Your task to perform on an android device: turn off location history Image 0: 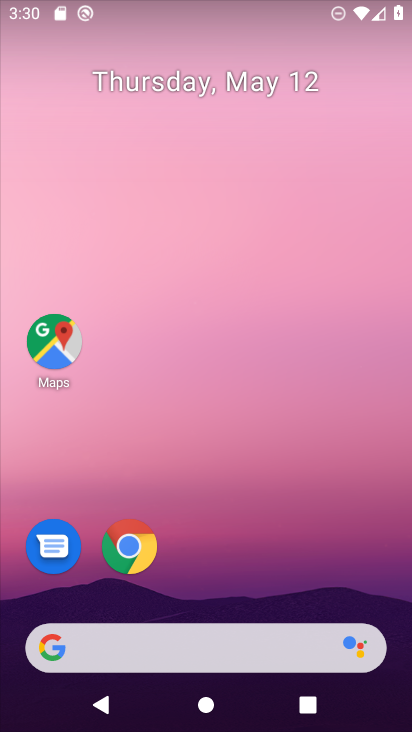
Step 0: drag from (258, 554) to (235, 253)
Your task to perform on an android device: turn off location history Image 1: 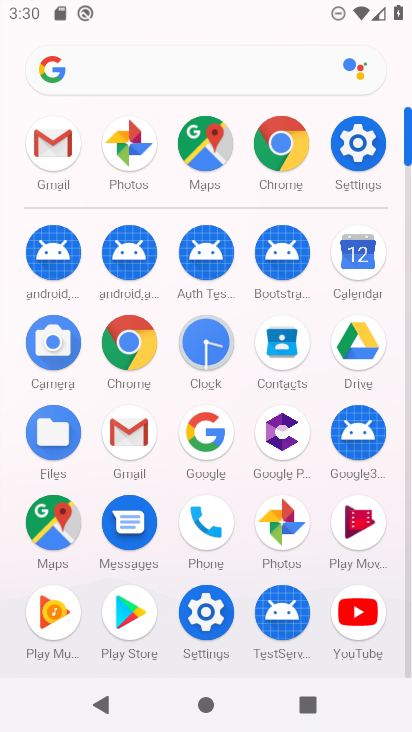
Step 1: click (357, 135)
Your task to perform on an android device: turn off location history Image 2: 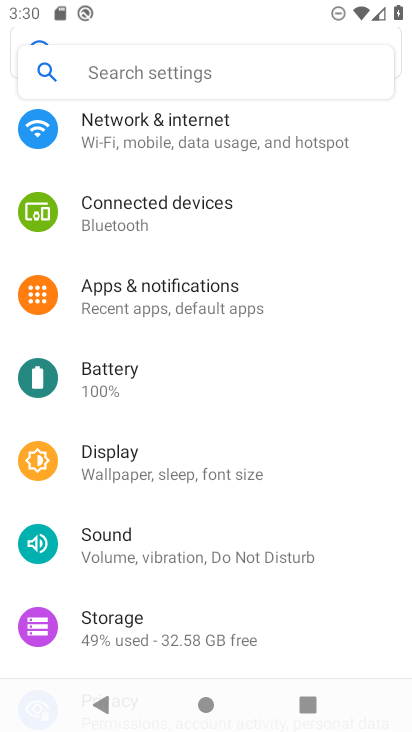
Step 2: drag from (224, 575) to (287, 247)
Your task to perform on an android device: turn off location history Image 3: 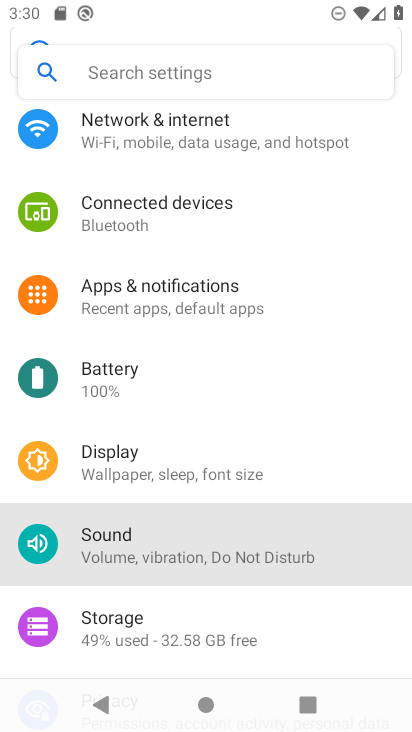
Step 3: drag from (309, 515) to (312, 329)
Your task to perform on an android device: turn off location history Image 4: 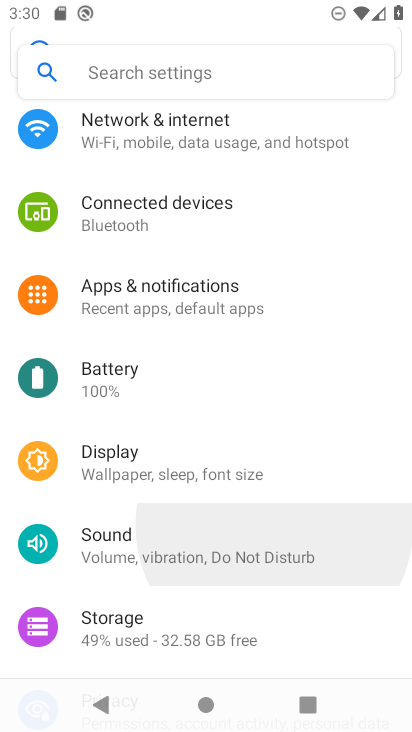
Step 4: drag from (222, 527) to (246, 251)
Your task to perform on an android device: turn off location history Image 5: 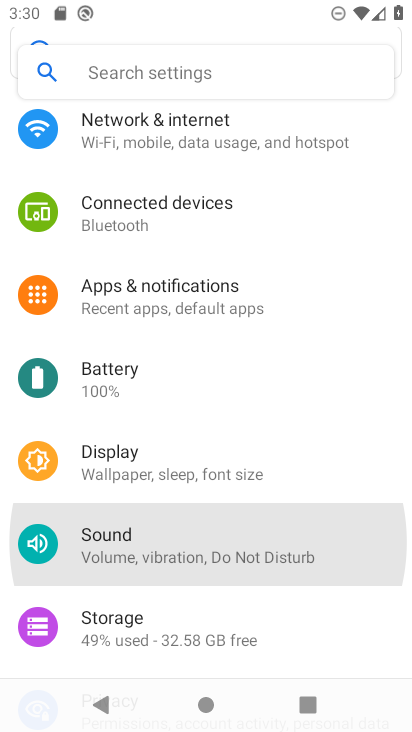
Step 5: drag from (184, 529) to (234, 233)
Your task to perform on an android device: turn off location history Image 6: 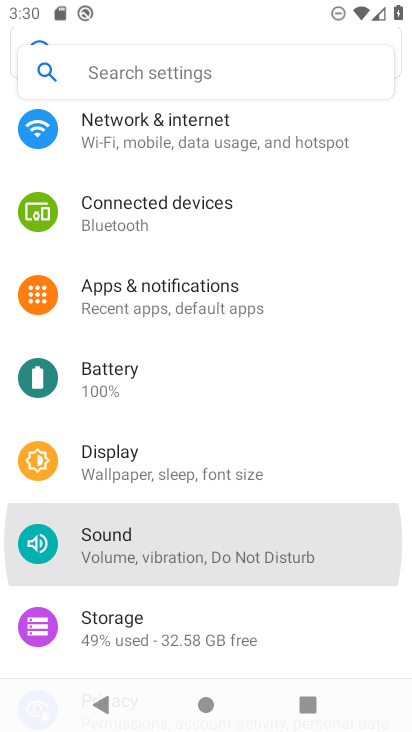
Step 6: drag from (183, 609) to (238, 288)
Your task to perform on an android device: turn off location history Image 7: 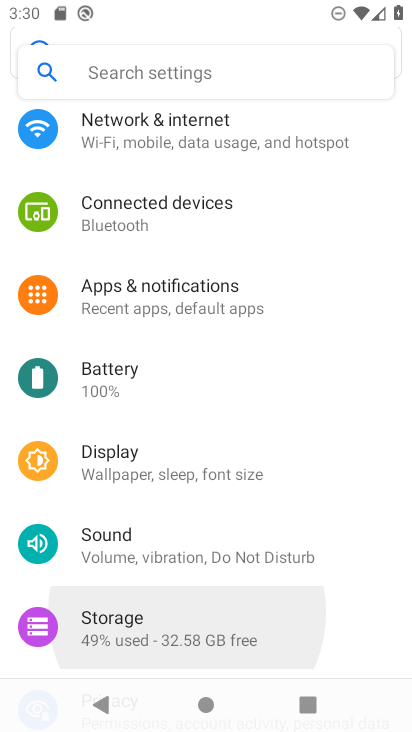
Step 7: drag from (189, 601) to (233, 251)
Your task to perform on an android device: turn off location history Image 8: 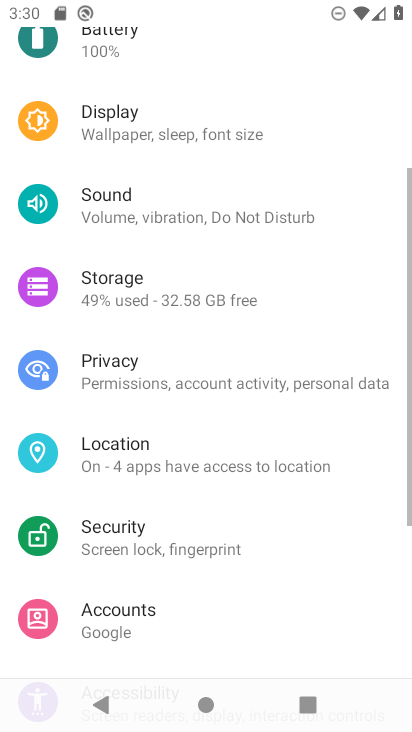
Step 8: drag from (256, 414) to (264, 228)
Your task to perform on an android device: turn off location history Image 9: 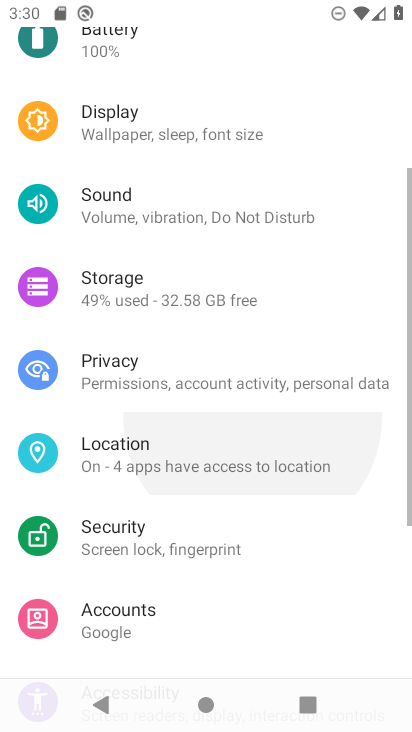
Step 9: drag from (143, 508) to (201, 223)
Your task to perform on an android device: turn off location history Image 10: 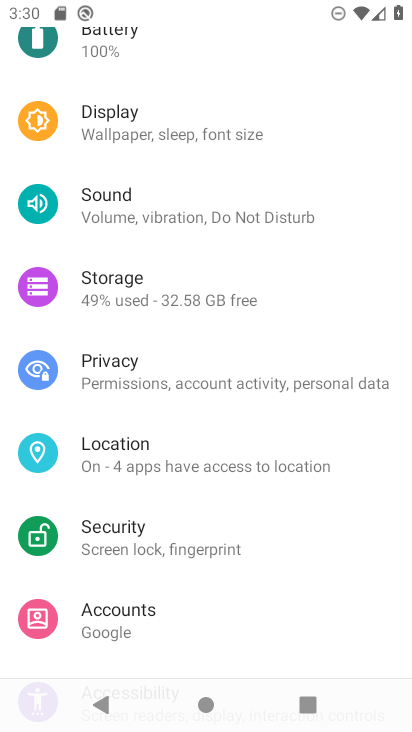
Step 10: click (134, 466)
Your task to perform on an android device: turn off location history Image 11: 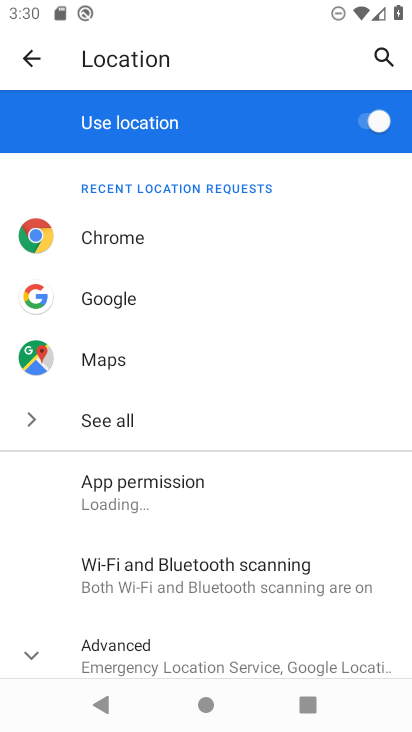
Step 11: drag from (202, 600) to (273, 191)
Your task to perform on an android device: turn off location history Image 12: 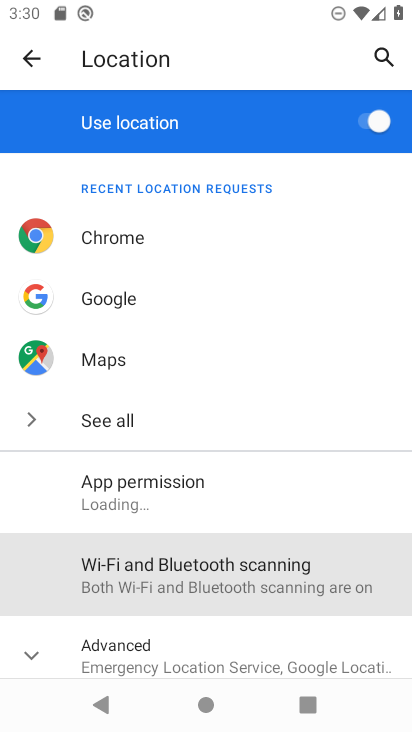
Step 12: drag from (231, 507) to (244, 222)
Your task to perform on an android device: turn off location history Image 13: 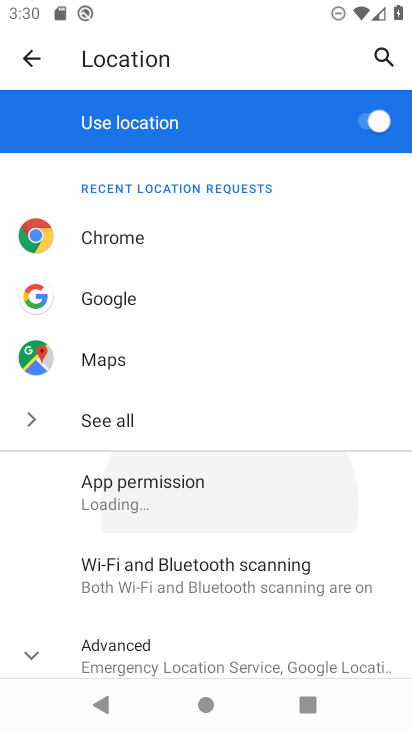
Step 13: drag from (137, 521) to (214, 235)
Your task to perform on an android device: turn off location history Image 14: 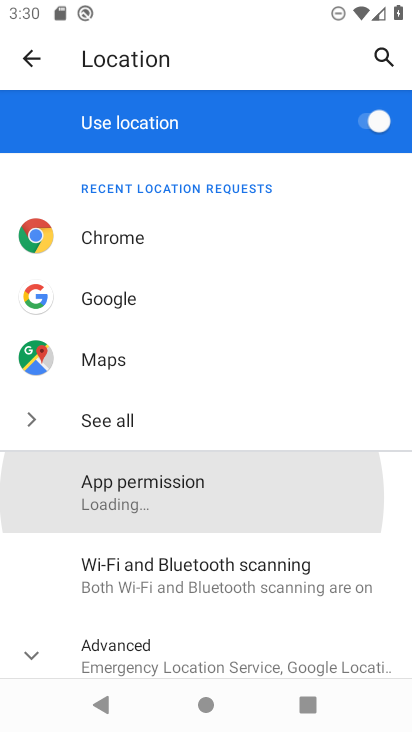
Step 14: drag from (177, 559) to (253, 285)
Your task to perform on an android device: turn off location history Image 15: 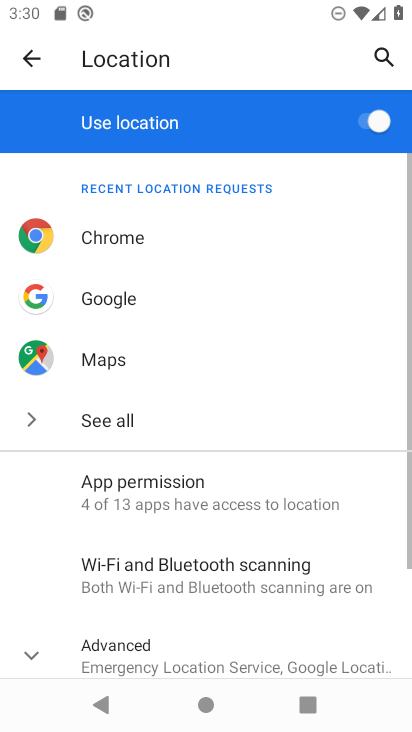
Step 15: drag from (248, 461) to (275, 302)
Your task to perform on an android device: turn off location history Image 16: 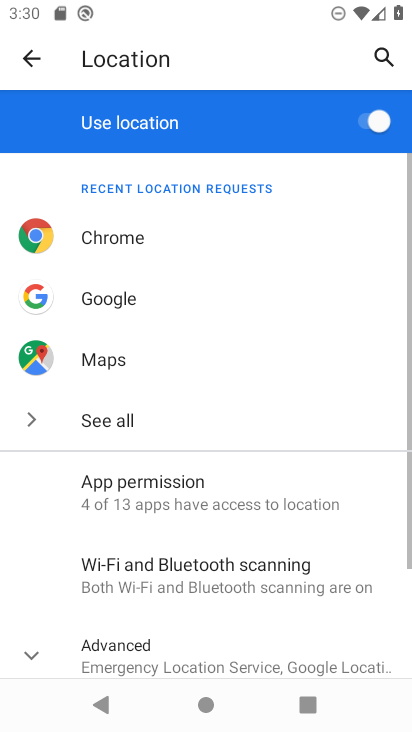
Step 16: drag from (241, 548) to (292, 257)
Your task to perform on an android device: turn off location history Image 17: 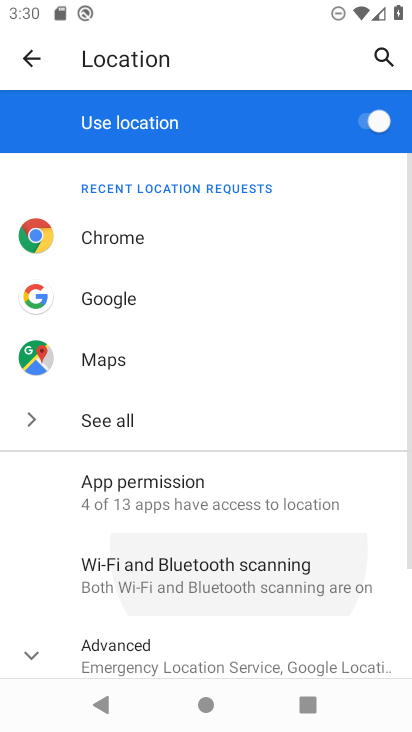
Step 17: drag from (226, 601) to (309, 258)
Your task to perform on an android device: turn off location history Image 18: 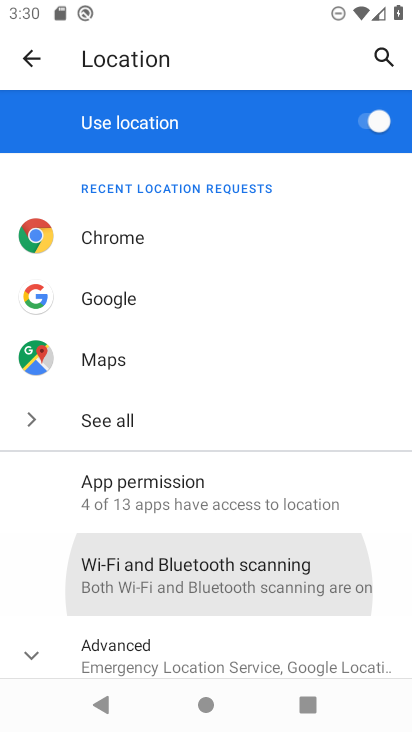
Step 18: drag from (248, 568) to (320, 256)
Your task to perform on an android device: turn off location history Image 19: 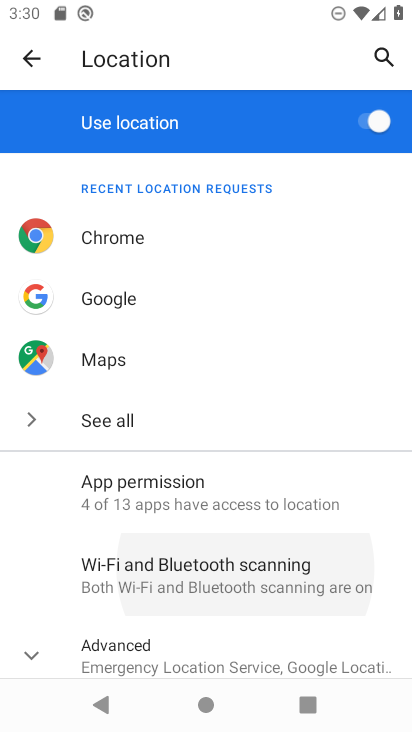
Step 19: drag from (164, 569) to (232, 317)
Your task to perform on an android device: turn off location history Image 20: 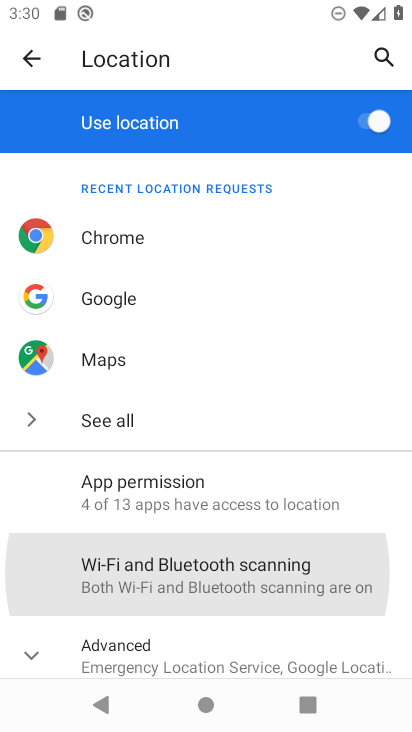
Step 20: drag from (102, 691) to (178, 491)
Your task to perform on an android device: turn off location history Image 21: 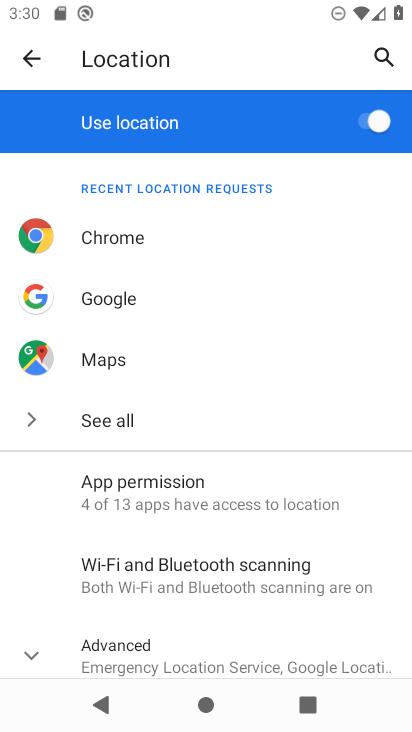
Step 21: click (166, 657)
Your task to perform on an android device: turn off location history Image 22: 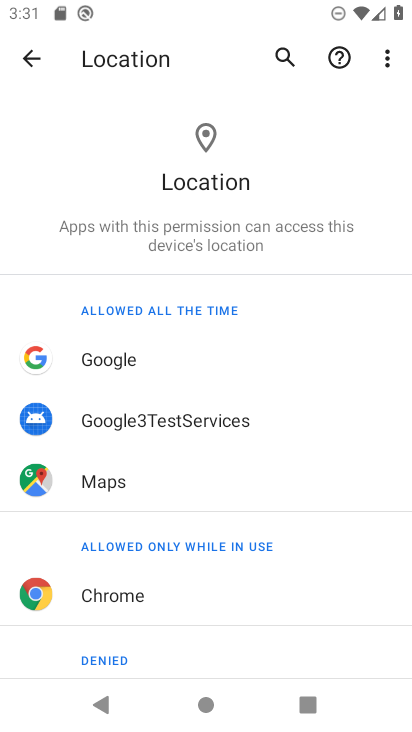
Step 22: click (35, 62)
Your task to perform on an android device: turn off location history Image 23: 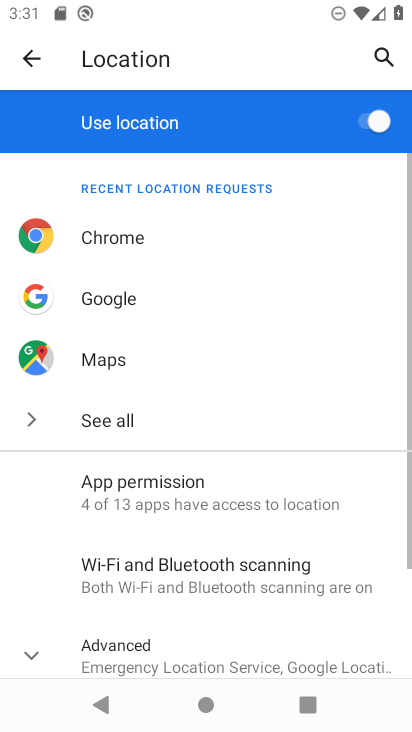
Step 23: click (155, 652)
Your task to perform on an android device: turn off location history Image 24: 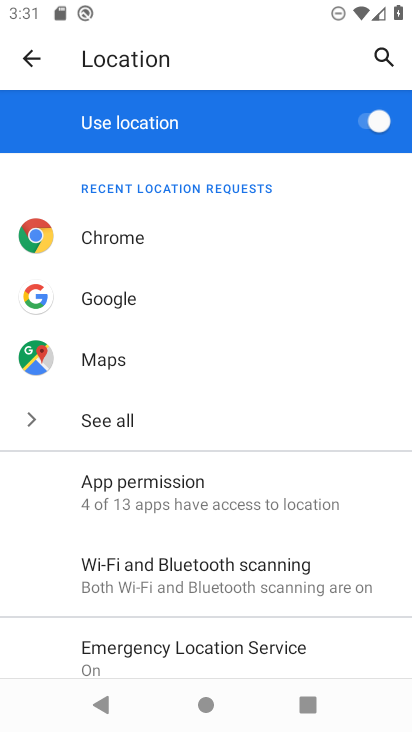
Step 24: drag from (255, 636) to (294, 276)
Your task to perform on an android device: turn off location history Image 25: 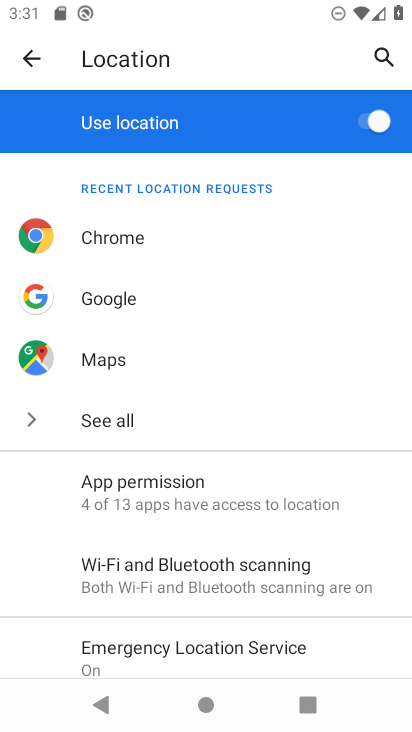
Step 25: drag from (353, 480) to (353, 345)
Your task to perform on an android device: turn off location history Image 26: 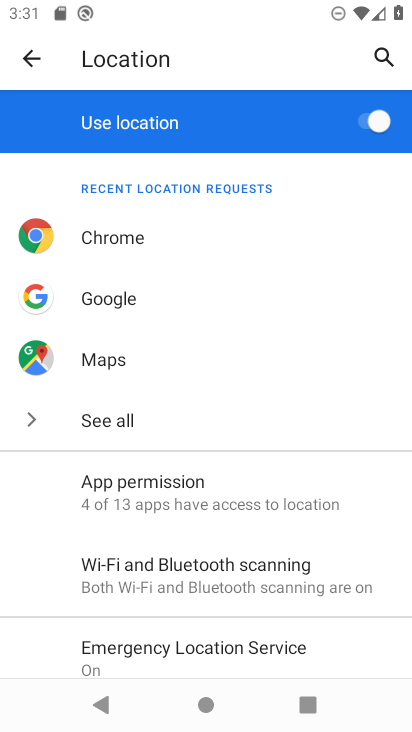
Step 26: drag from (306, 527) to (318, 307)
Your task to perform on an android device: turn off location history Image 27: 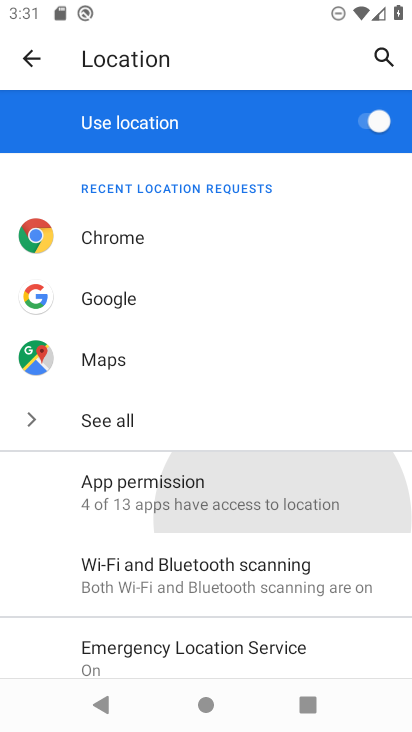
Step 27: drag from (238, 540) to (283, 249)
Your task to perform on an android device: turn off location history Image 28: 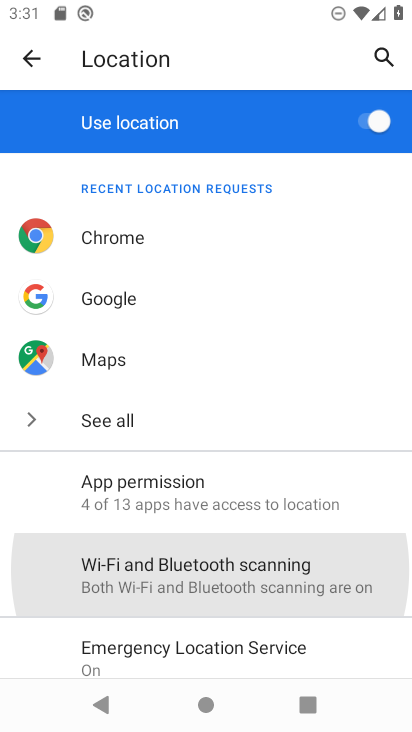
Step 28: drag from (218, 556) to (279, 301)
Your task to perform on an android device: turn off location history Image 29: 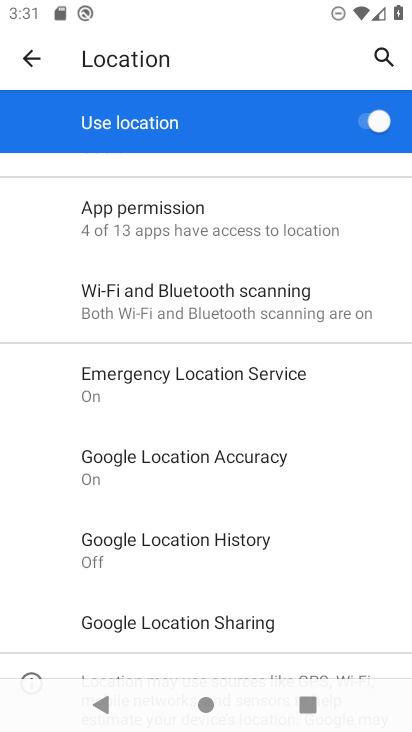
Step 29: click (174, 542)
Your task to perform on an android device: turn off location history Image 30: 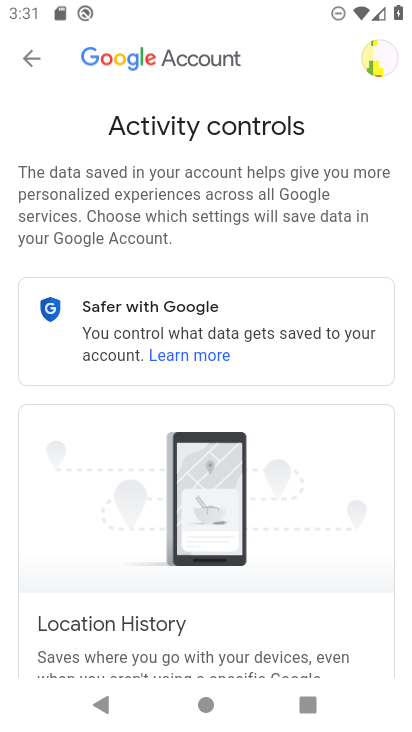
Step 30: task complete